Your task to perform on an android device: delete the emails in spam in the gmail app Image 0: 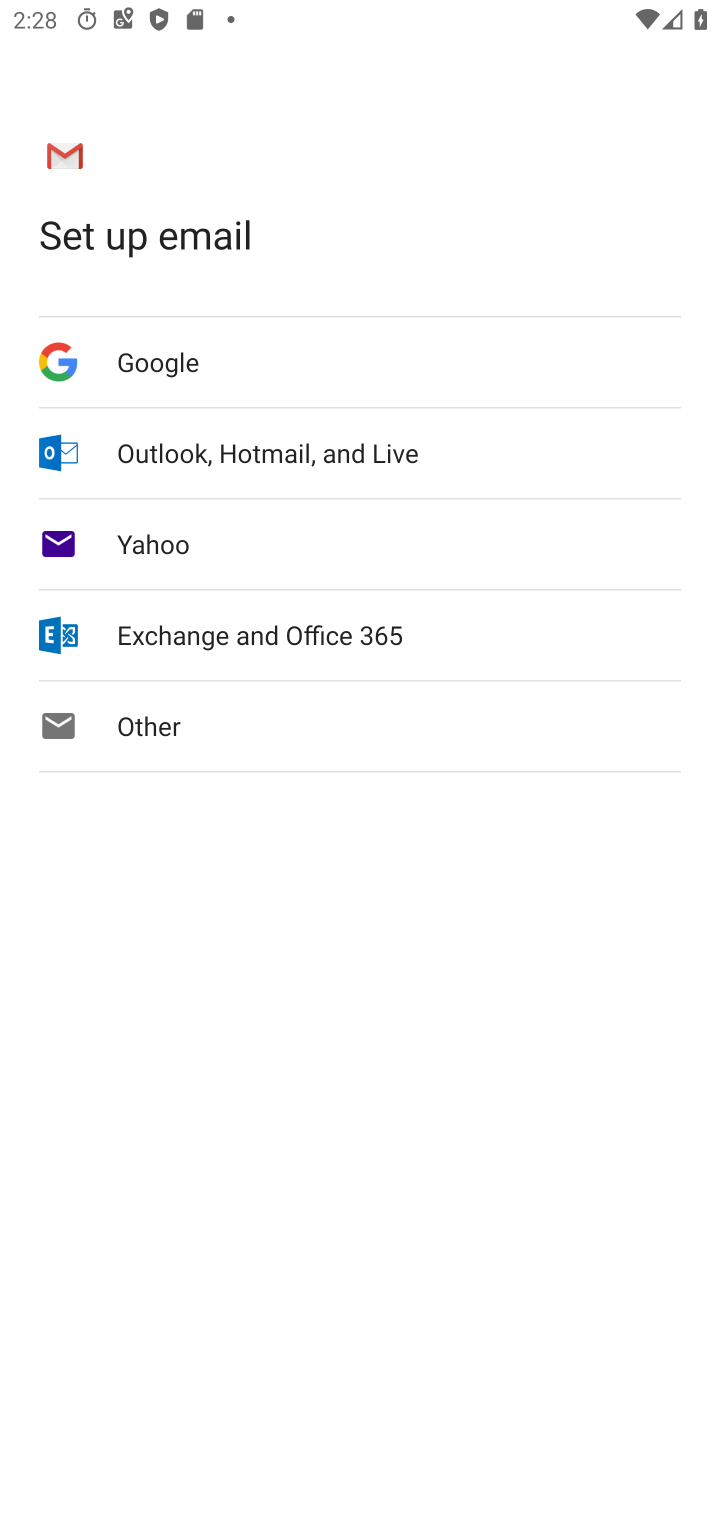
Step 0: press home button
Your task to perform on an android device: delete the emails in spam in the gmail app Image 1: 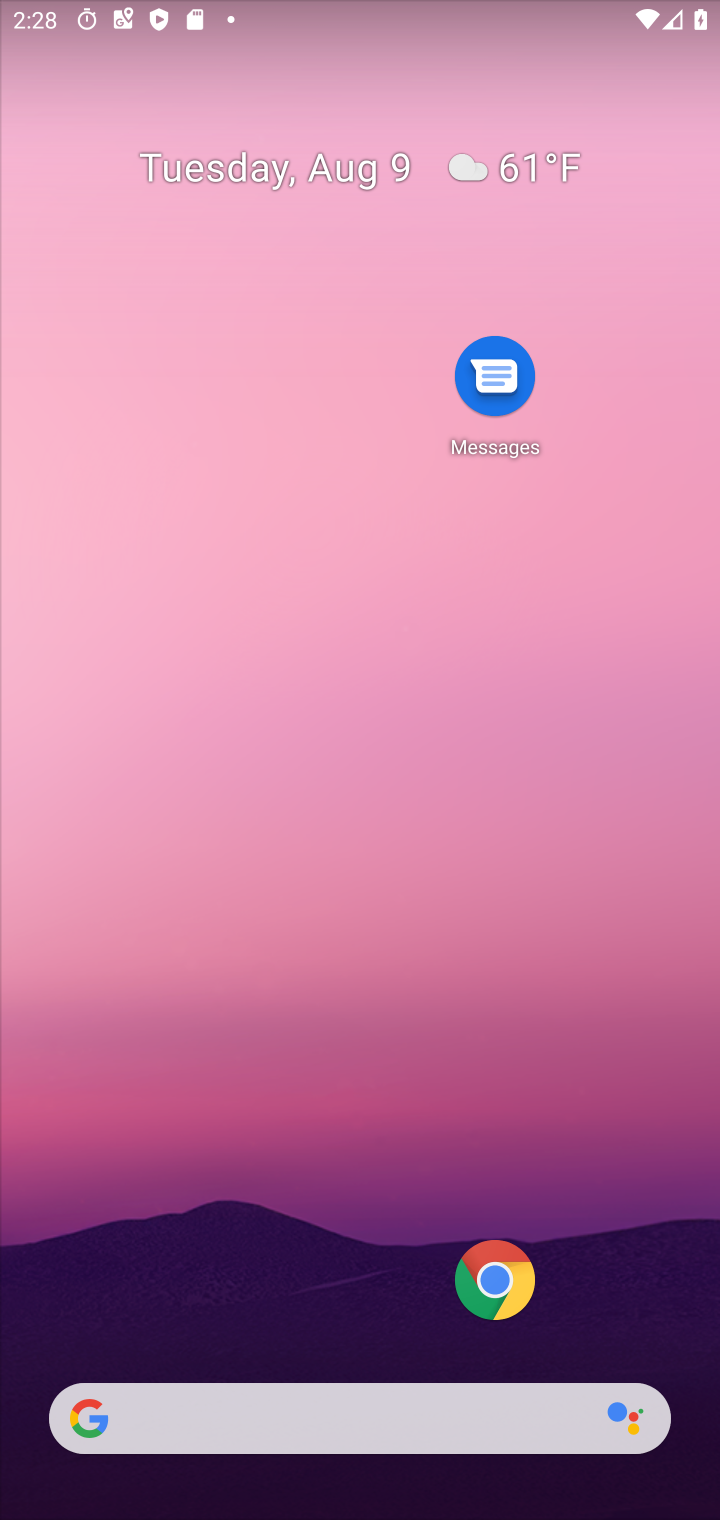
Step 1: drag from (279, 983) to (411, 1)
Your task to perform on an android device: delete the emails in spam in the gmail app Image 2: 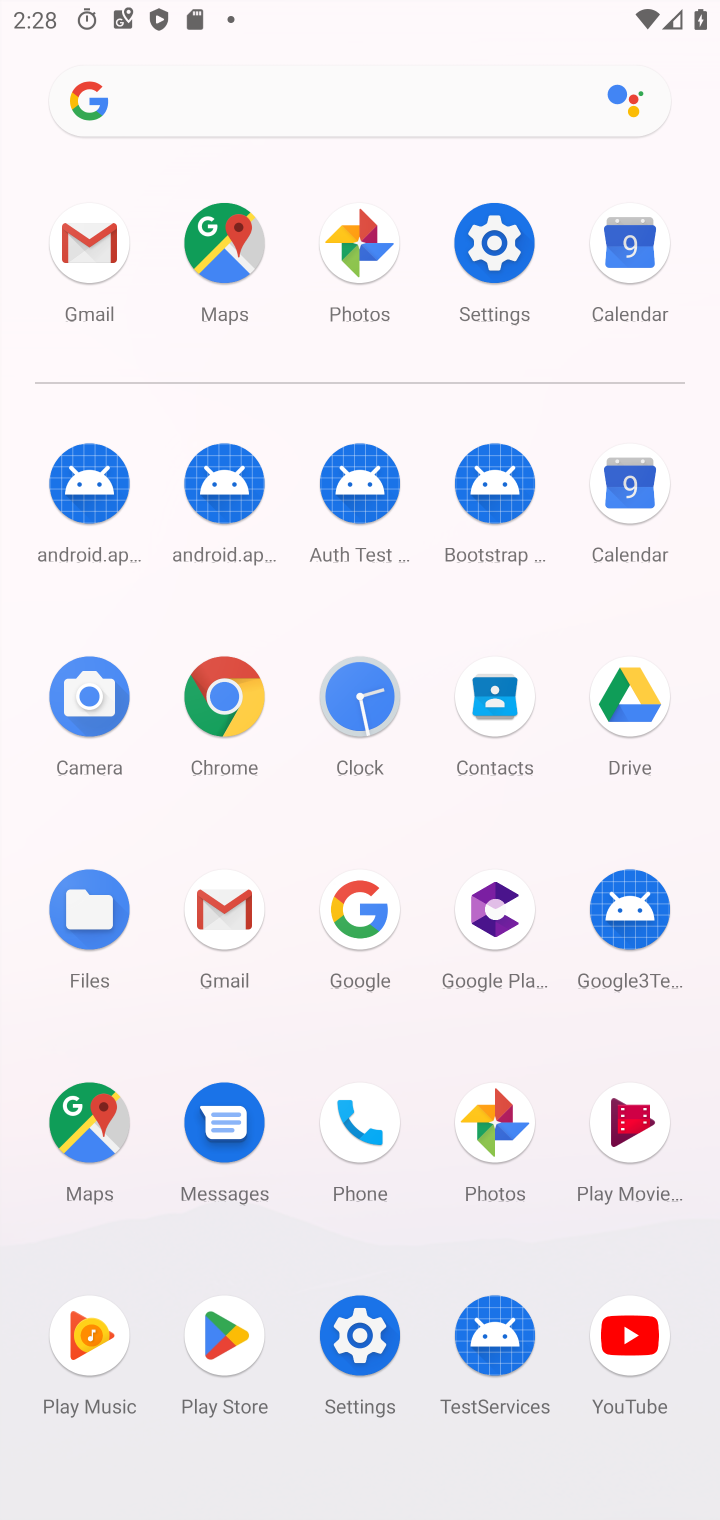
Step 2: click (92, 261)
Your task to perform on an android device: delete the emails in spam in the gmail app Image 3: 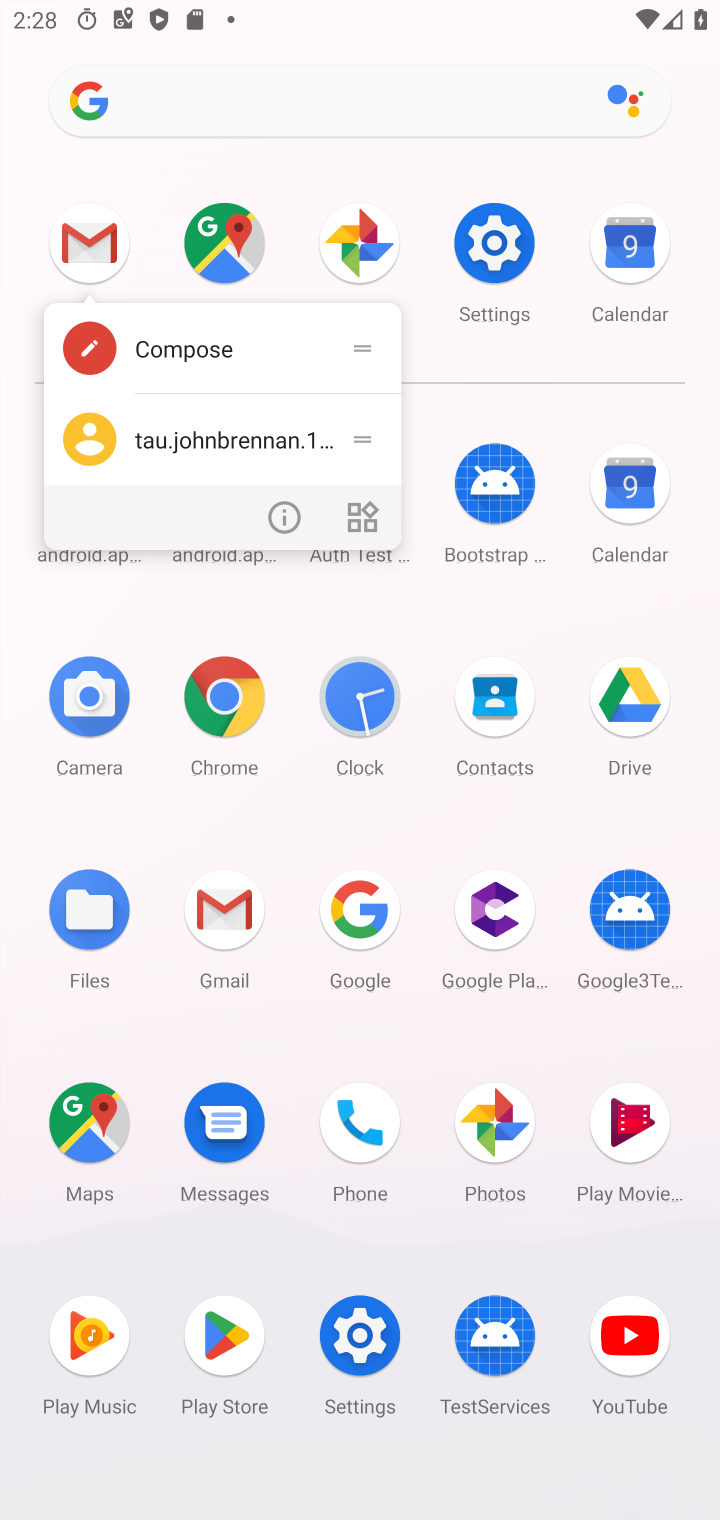
Step 3: click (94, 245)
Your task to perform on an android device: delete the emails in spam in the gmail app Image 4: 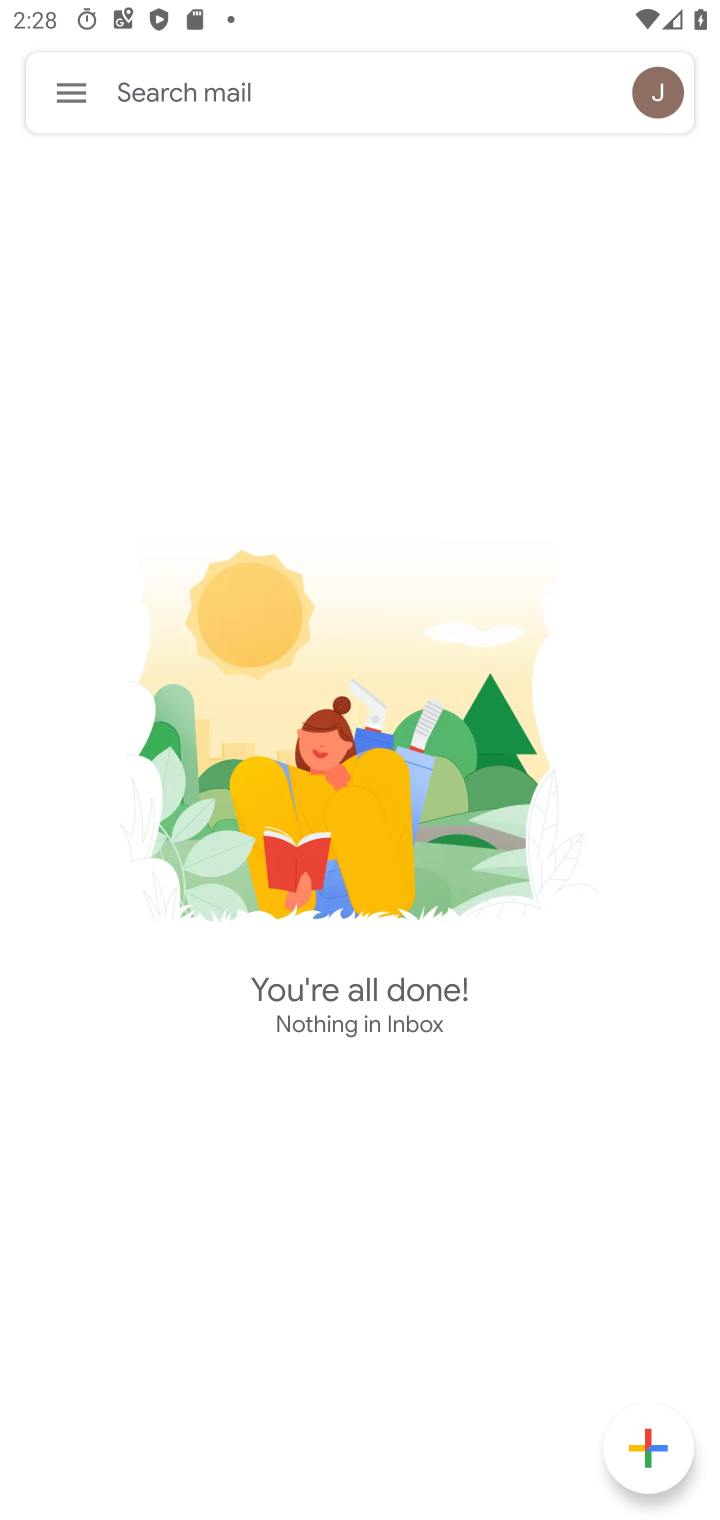
Step 4: click (69, 99)
Your task to perform on an android device: delete the emails in spam in the gmail app Image 5: 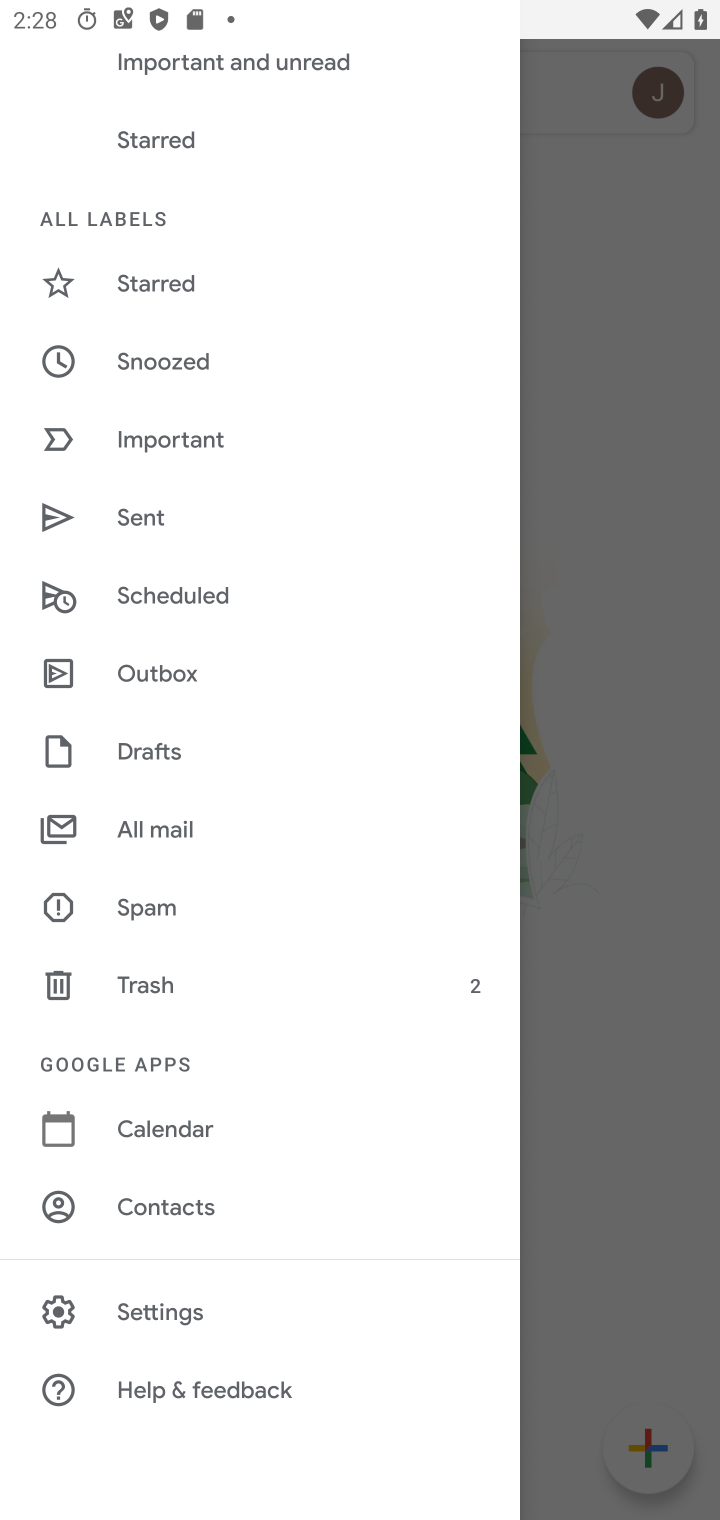
Step 5: click (171, 897)
Your task to perform on an android device: delete the emails in spam in the gmail app Image 6: 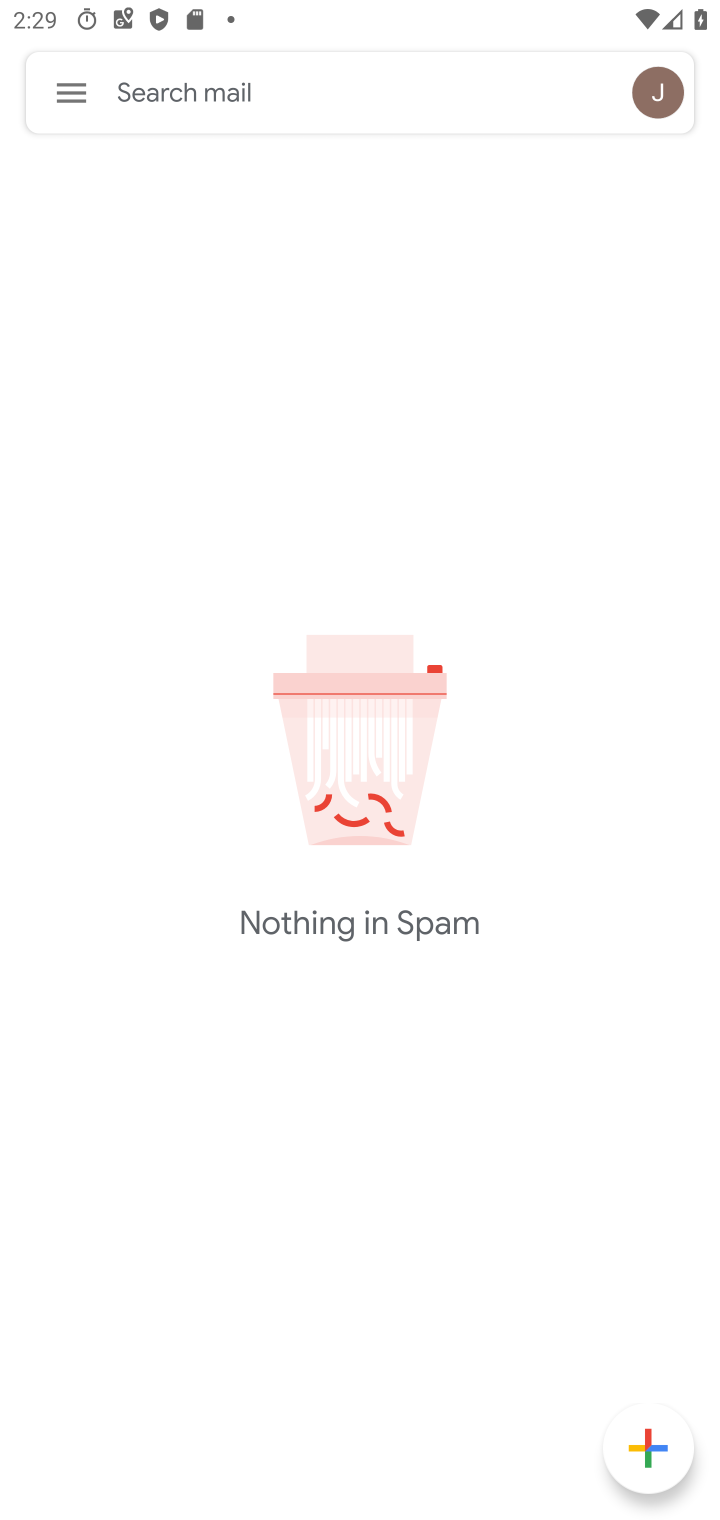
Step 6: task complete